Your task to perform on an android device: toggle show notifications on the lock screen Image 0: 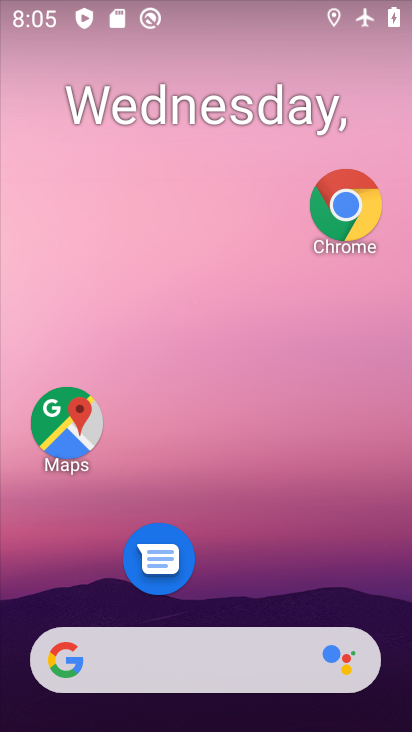
Step 0: drag from (235, 493) to (278, 144)
Your task to perform on an android device: toggle show notifications on the lock screen Image 1: 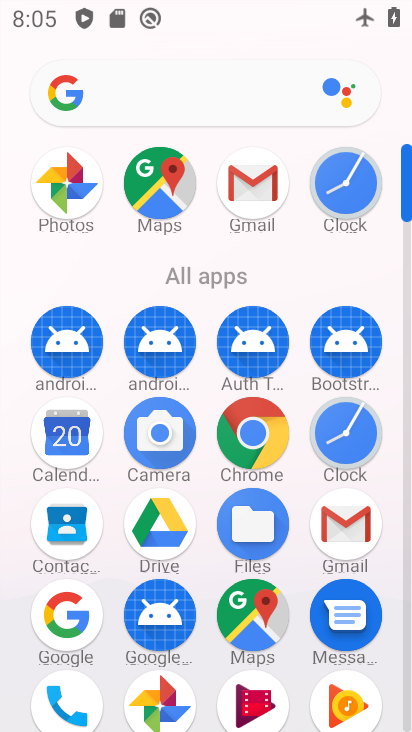
Step 1: drag from (208, 668) to (256, 236)
Your task to perform on an android device: toggle show notifications on the lock screen Image 2: 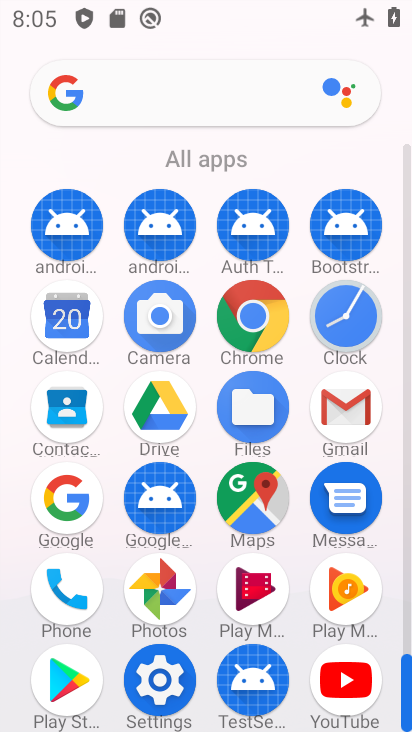
Step 2: click (158, 677)
Your task to perform on an android device: toggle show notifications on the lock screen Image 3: 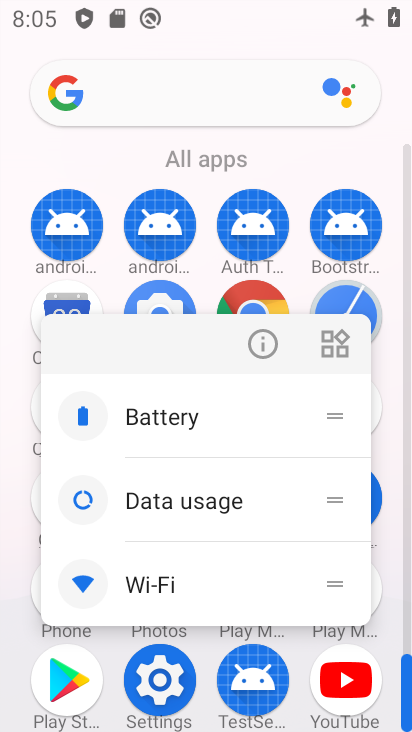
Step 3: click (267, 344)
Your task to perform on an android device: toggle show notifications on the lock screen Image 4: 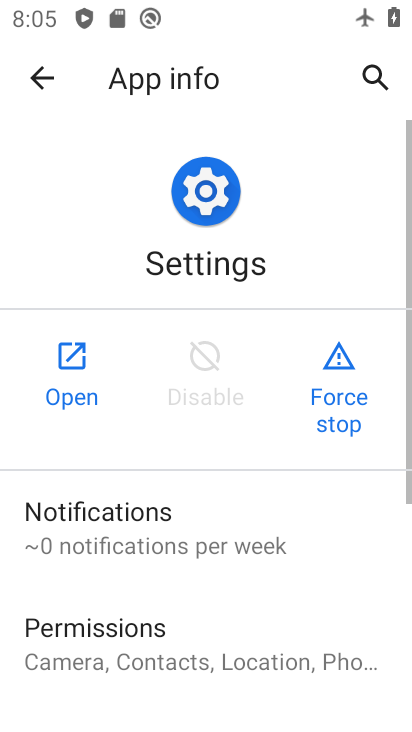
Step 4: click (68, 385)
Your task to perform on an android device: toggle show notifications on the lock screen Image 5: 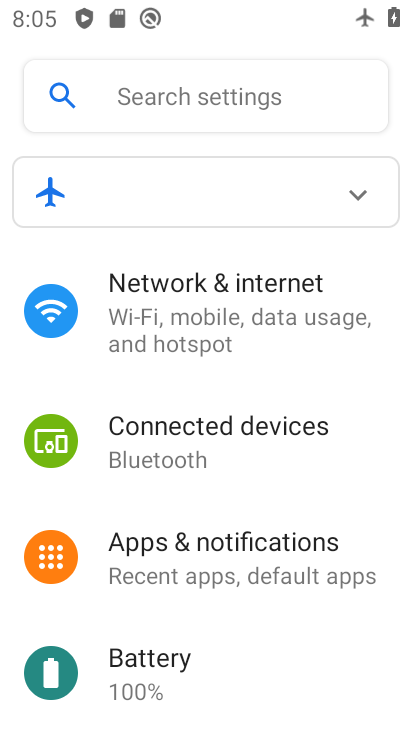
Step 5: drag from (193, 607) to (320, 97)
Your task to perform on an android device: toggle show notifications on the lock screen Image 6: 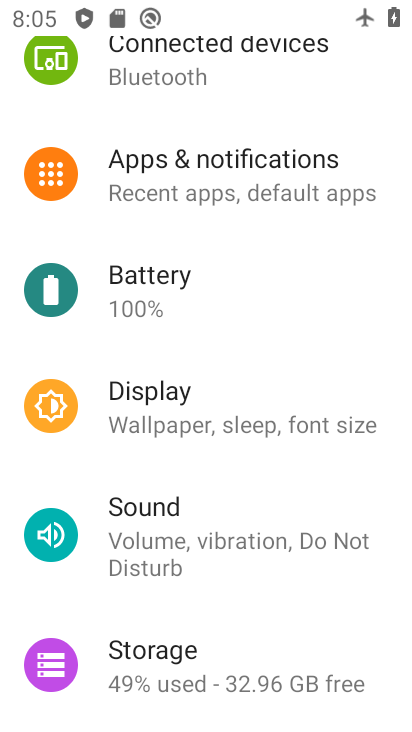
Step 6: drag from (231, 664) to (314, 138)
Your task to perform on an android device: toggle show notifications on the lock screen Image 7: 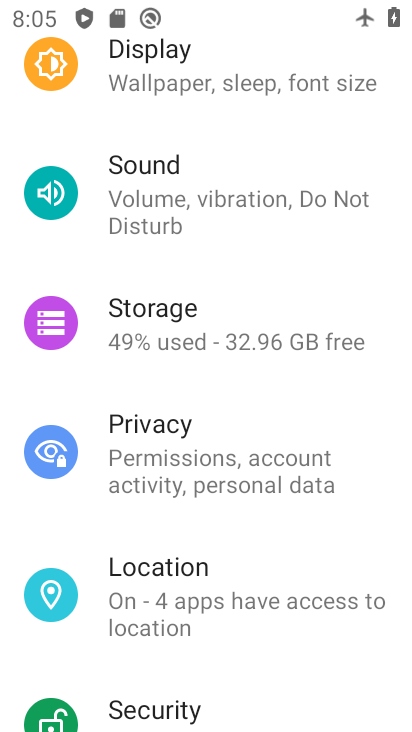
Step 7: drag from (253, 203) to (223, 731)
Your task to perform on an android device: toggle show notifications on the lock screen Image 8: 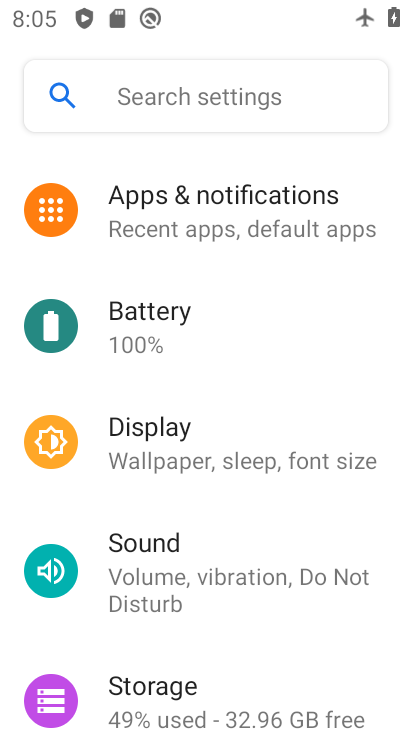
Step 8: click (217, 228)
Your task to perform on an android device: toggle show notifications on the lock screen Image 9: 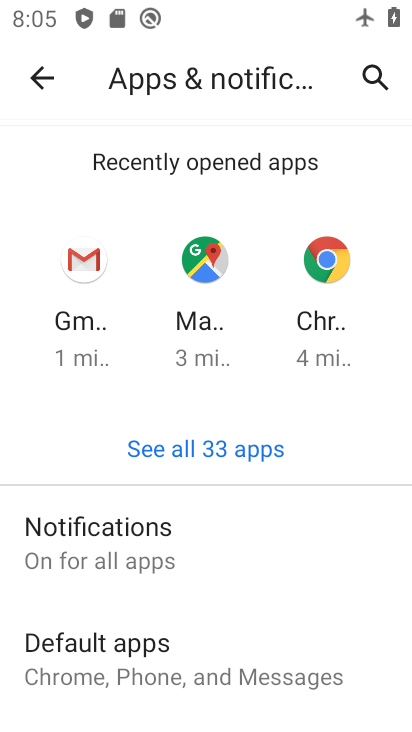
Step 9: click (193, 538)
Your task to perform on an android device: toggle show notifications on the lock screen Image 10: 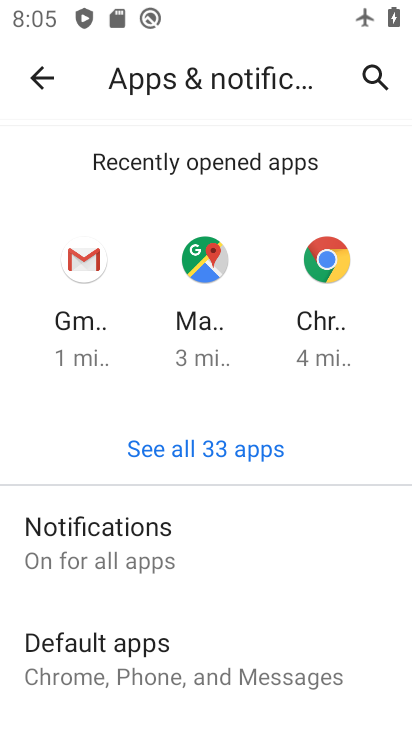
Step 10: drag from (193, 537) to (407, 7)
Your task to perform on an android device: toggle show notifications on the lock screen Image 11: 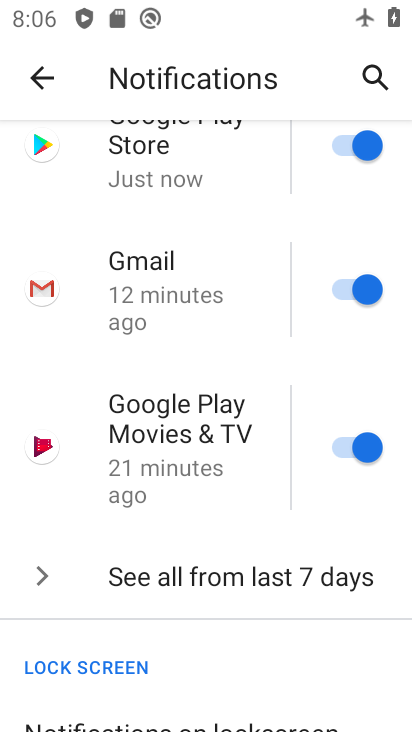
Step 11: drag from (232, 605) to (331, 151)
Your task to perform on an android device: toggle show notifications on the lock screen Image 12: 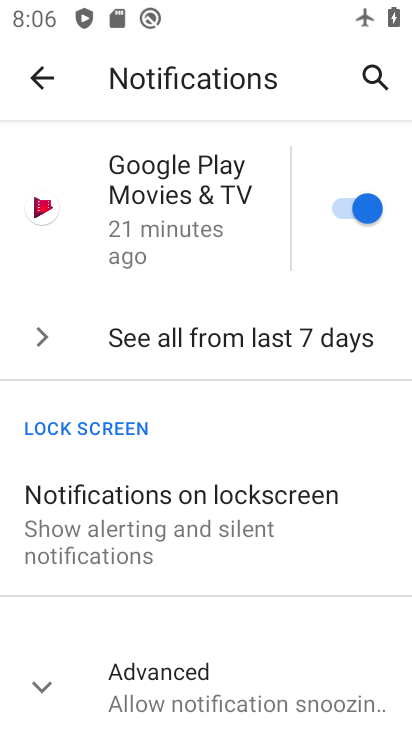
Step 12: click (156, 498)
Your task to perform on an android device: toggle show notifications on the lock screen Image 13: 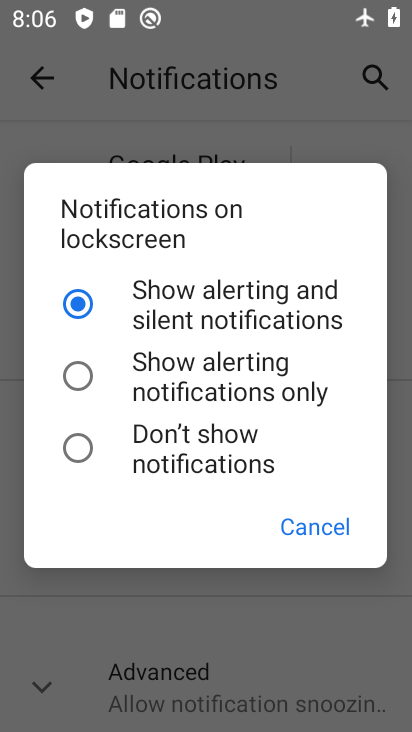
Step 13: click (200, 391)
Your task to perform on an android device: toggle show notifications on the lock screen Image 14: 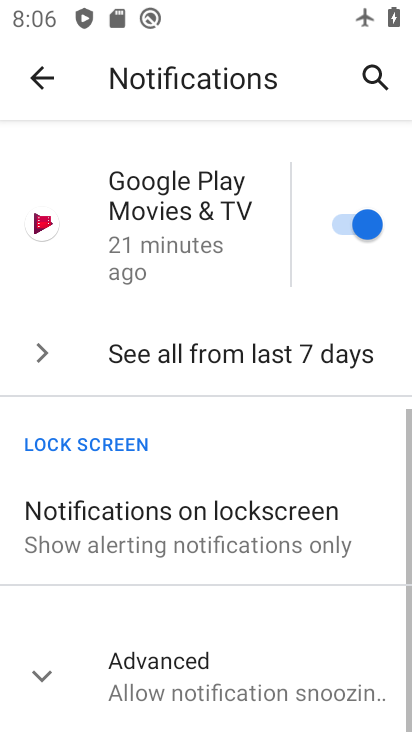
Step 14: task complete